Your task to perform on an android device: Is it going to rain tomorrow? Image 0: 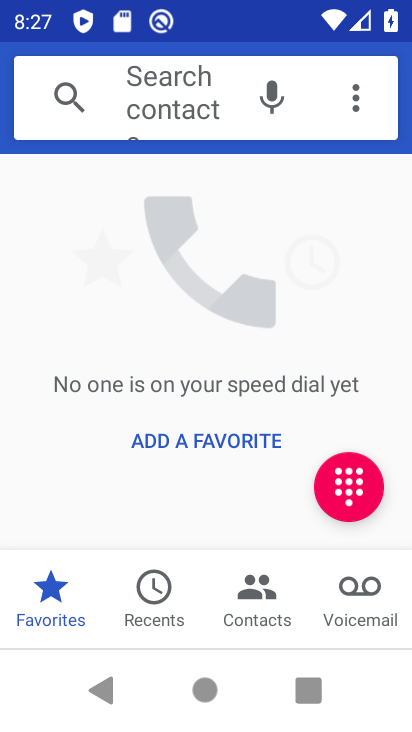
Step 0: press home button
Your task to perform on an android device: Is it going to rain tomorrow? Image 1: 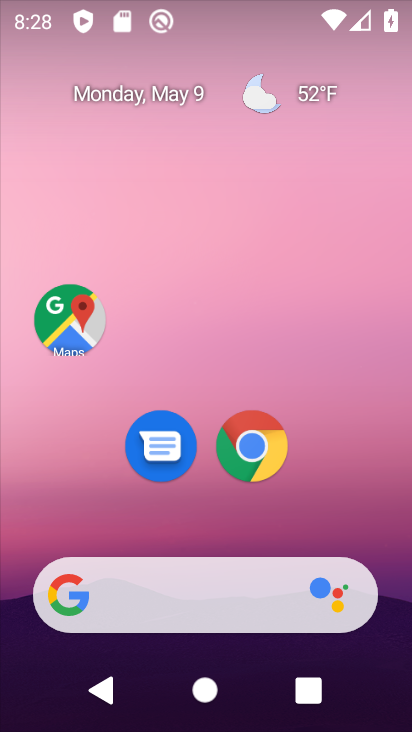
Step 1: click (309, 89)
Your task to perform on an android device: Is it going to rain tomorrow? Image 2: 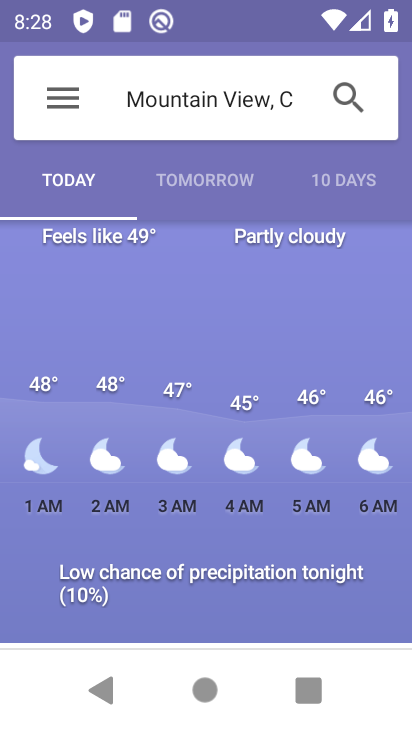
Step 2: click (209, 184)
Your task to perform on an android device: Is it going to rain tomorrow? Image 3: 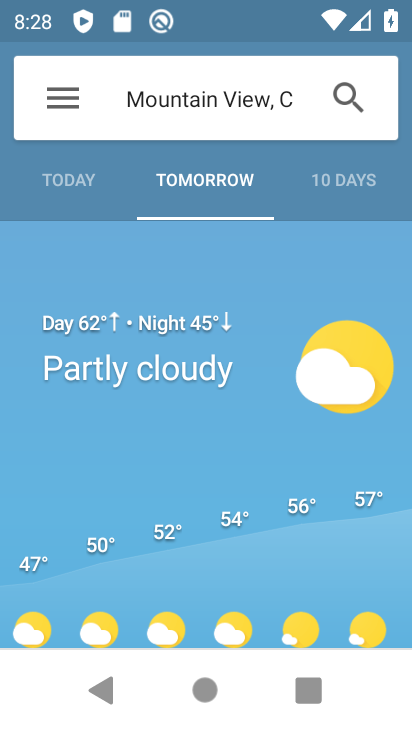
Step 3: task complete